Your task to perform on an android device: turn on sleep mode Image 0: 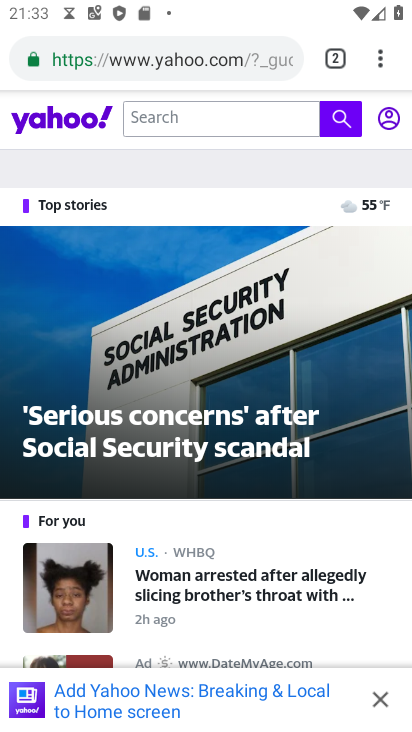
Step 0: press home button
Your task to perform on an android device: turn on sleep mode Image 1: 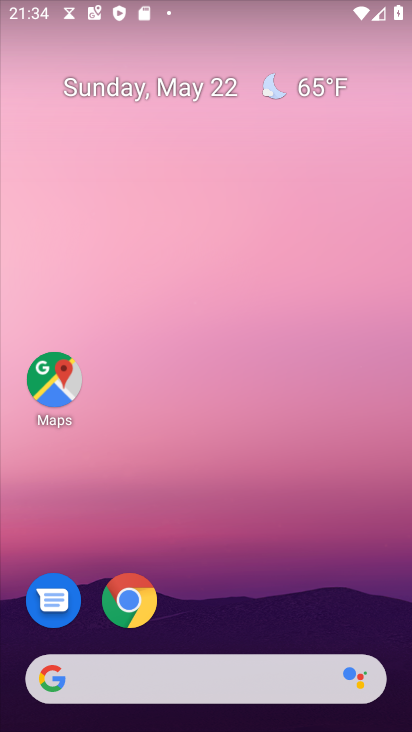
Step 1: drag from (237, 596) to (199, 221)
Your task to perform on an android device: turn on sleep mode Image 2: 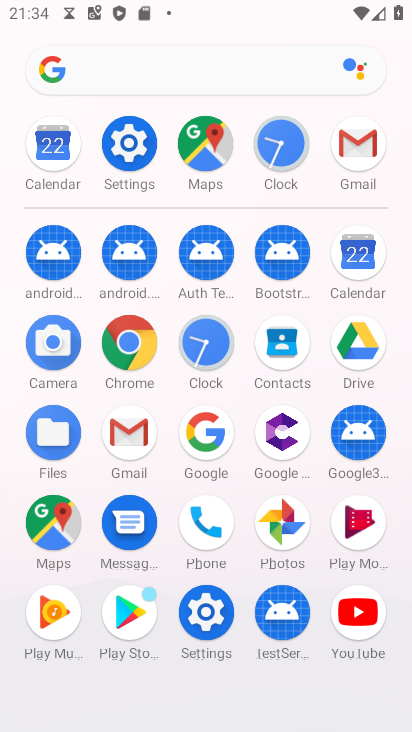
Step 2: click (138, 155)
Your task to perform on an android device: turn on sleep mode Image 3: 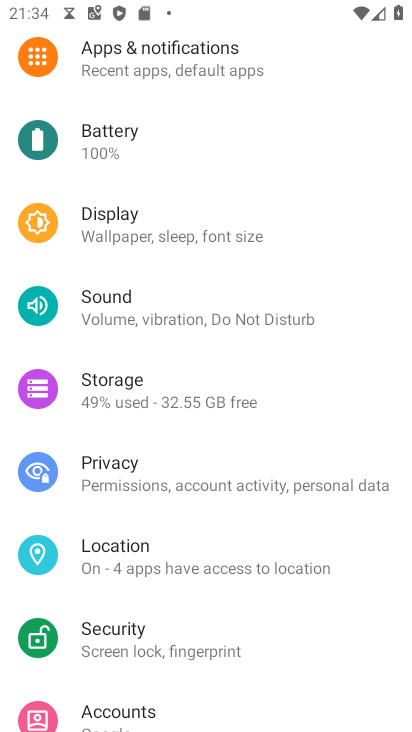
Step 3: task complete